Your task to perform on an android device: Open Amazon Image 0: 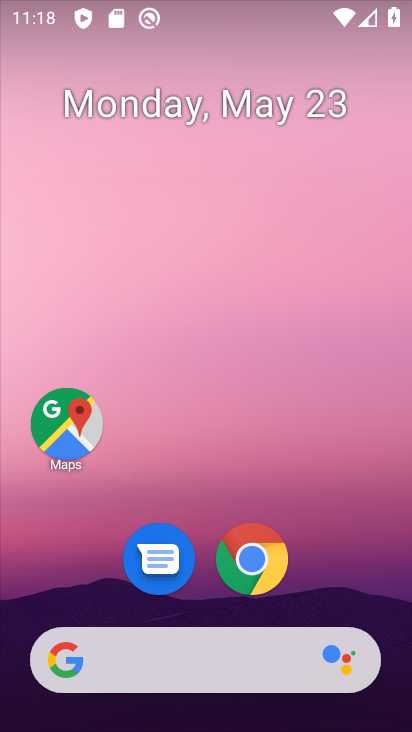
Step 0: click (238, 560)
Your task to perform on an android device: Open Amazon Image 1: 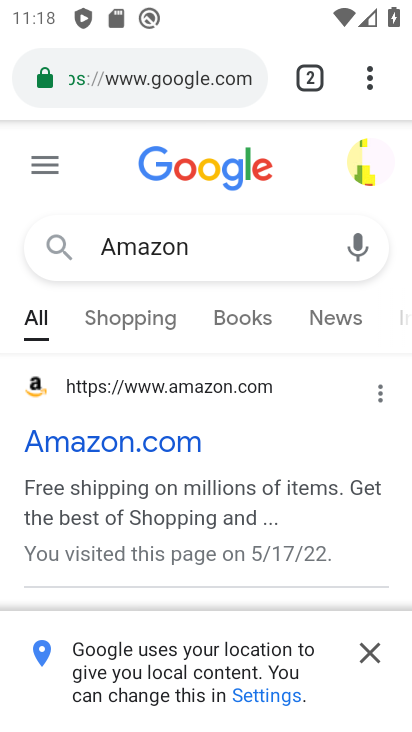
Step 1: task complete